Your task to perform on an android device: toggle airplane mode Image 0: 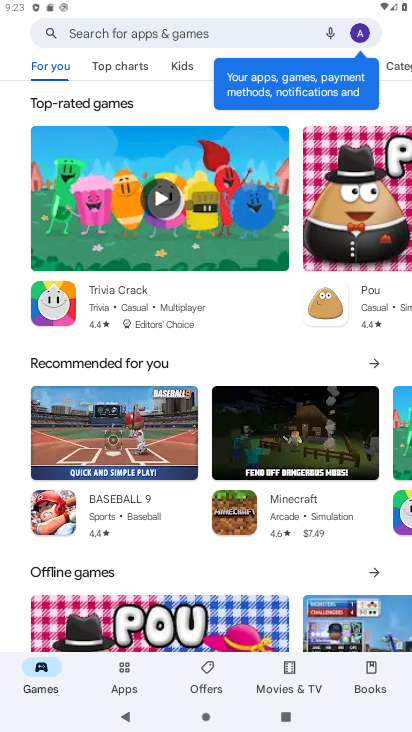
Step 0: press home button
Your task to perform on an android device: toggle airplane mode Image 1: 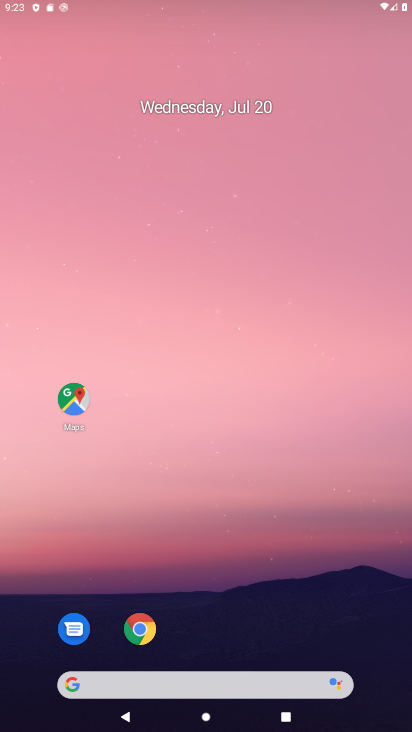
Step 1: drag from (303, 559) to (335, 5)
Your task to perform on an android device: toggle airplane mode Image 2: 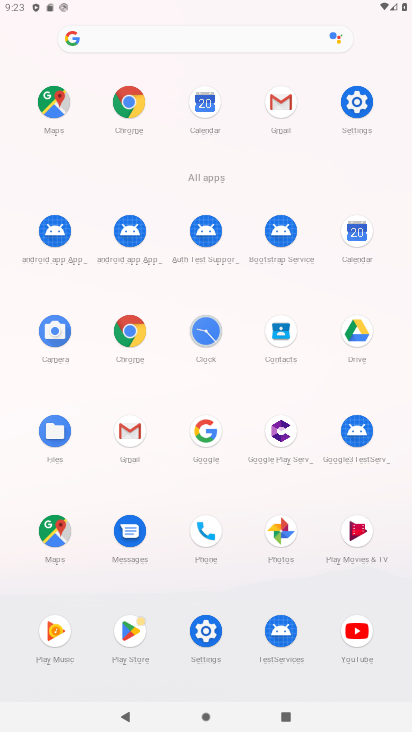
Step 2: click (366, 108)
Your task to perform on an android device: toggle airplane mode Image 3: 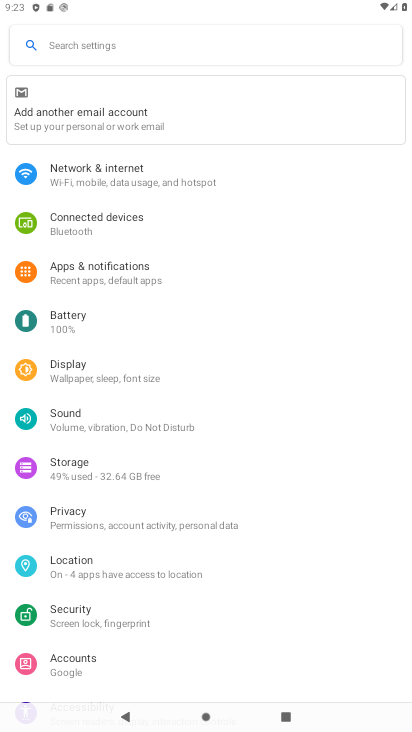
Step 3: click (131, 180)
Your task to perform on an android device: toggle airplane mode Image 4: 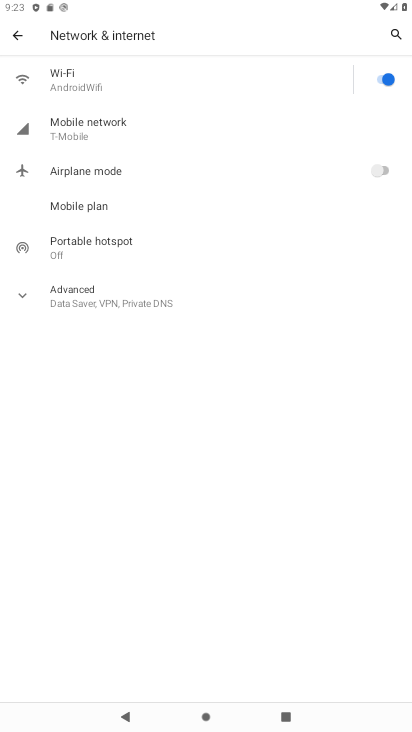
Step 4: click (111, 170)
Your task to perform on an android device: toggle airplane mode Image 5: 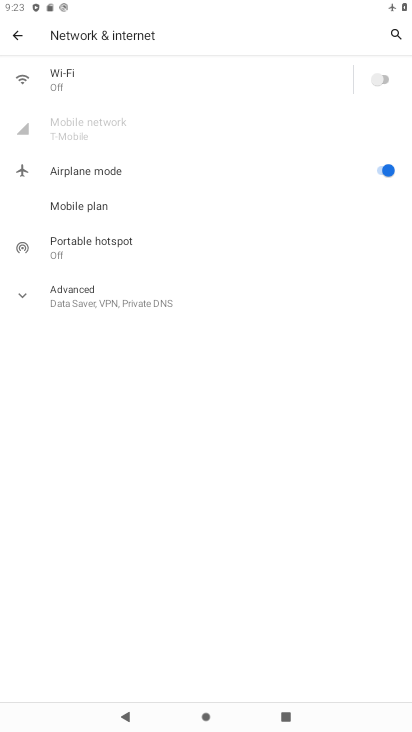
Step 5: task complete